Your task to perform on an android device: toggle airplane mode Image 0: 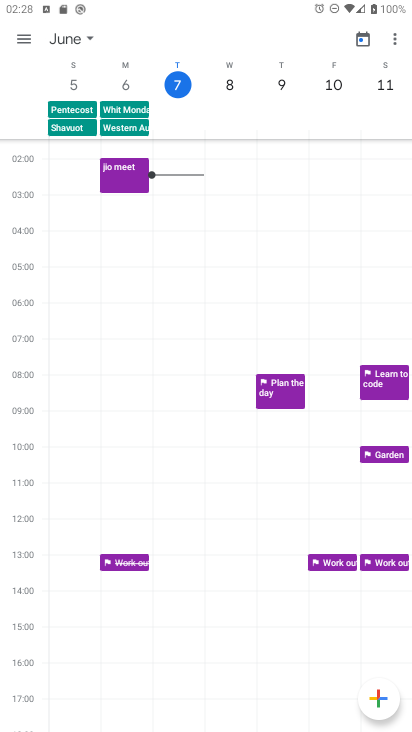
Step 0: drag from (232, 708) to (327, 488)
Your task to perform on an android device: toggle airplane mode Image 1: 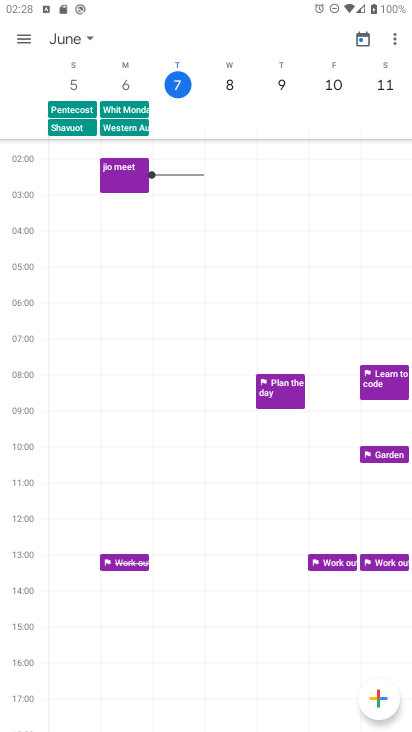
Step 1: press home button
Your task to perform on an android device: toggle airplane mode Image 2: 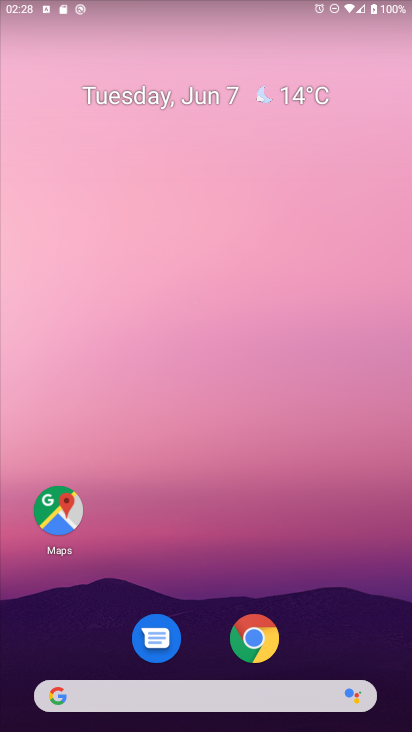
Step 2: drag from (203, 701) to (214, 289)
Your task to perform on an android device: toggle airplane mode Image 3: 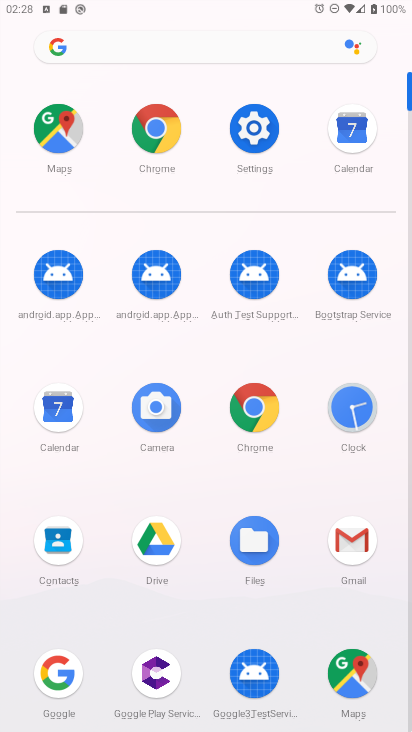
Step 3: click (252, 138)
Your task to perform on an android device: toggle airplane mode Image 4: 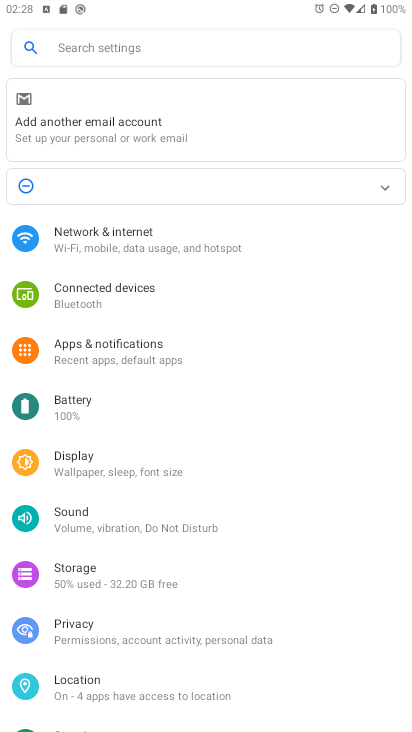
Step 4: click (150, 240)
Your task to perform on an android device: toggle airplane mode Image 5: 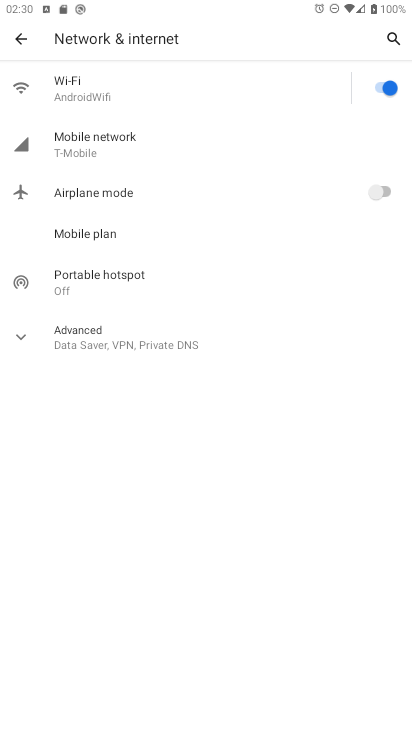
Step 5: task complete